Your task to perform on an android device: Open display settings Image 0: 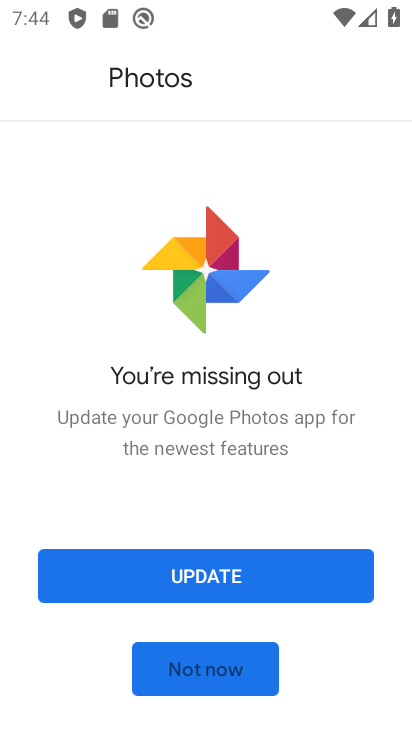
Step 0: press home button
Your task to perform on an android device: Open display settings Image 1: 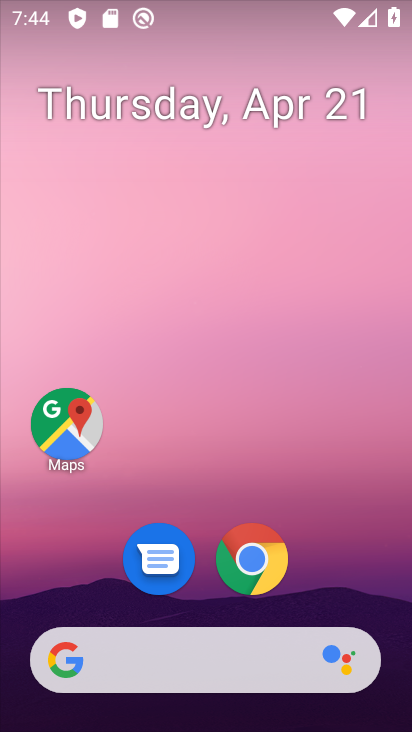
Step 1: drag from (327, 588) to (286, 88)
Your task to perform on an android device: Open display settings Image 2: 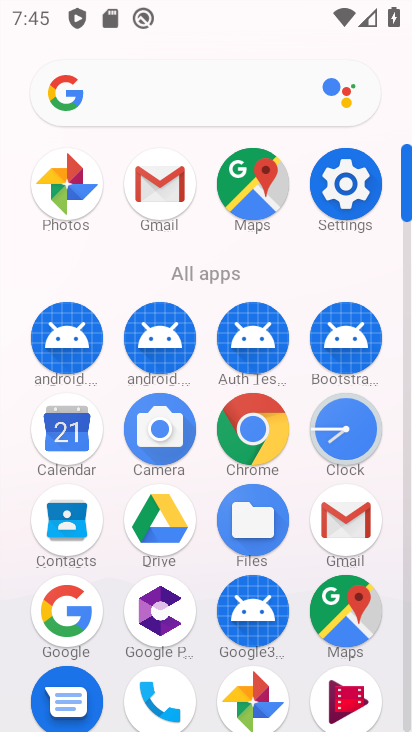
Step 2: click (359, 179)
Your task to perform on an android device: Open display settings Image 3: 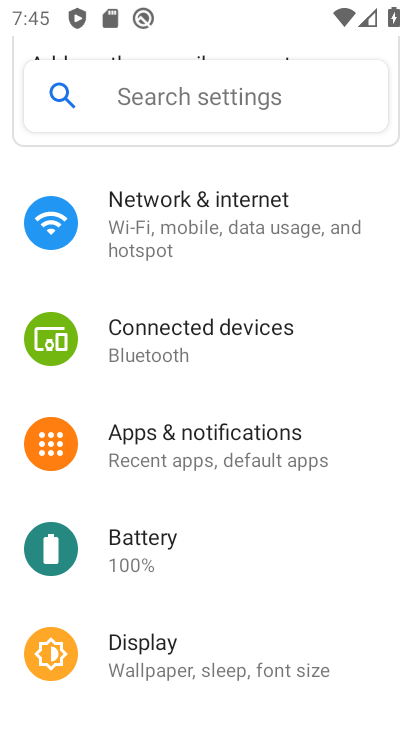
Step 3: click (88, 668)
Your task to perform on an android device: Open display settings Image 4: 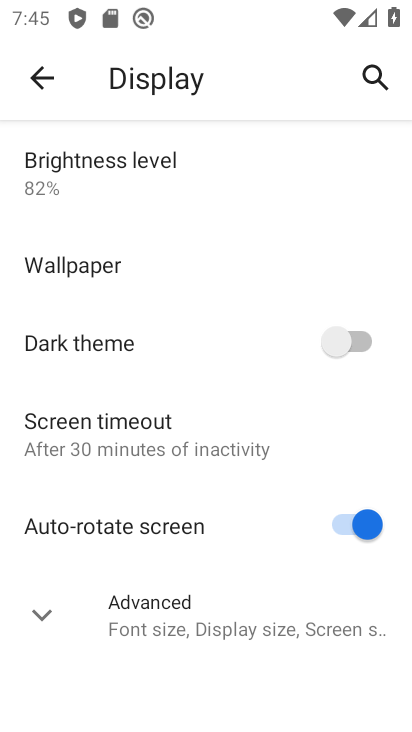
Step 4: task complete